Your task to perform on an android device: change your default location settings in chrome Image 0: 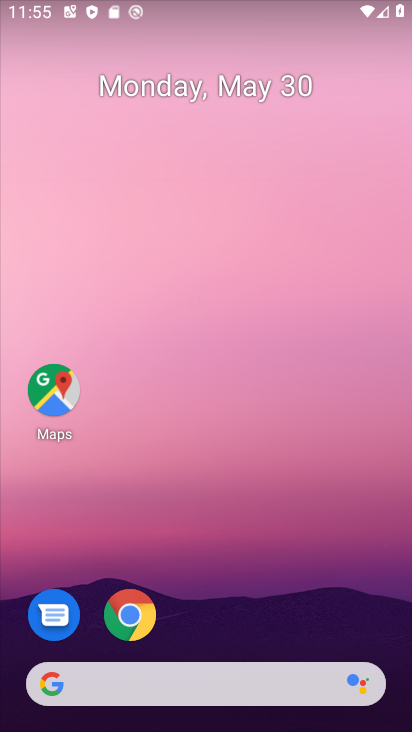
Step 0: drag from (359, 627) to (358, 116)
Your task to perform on an android device: change your default location settings in chrome Image 1: 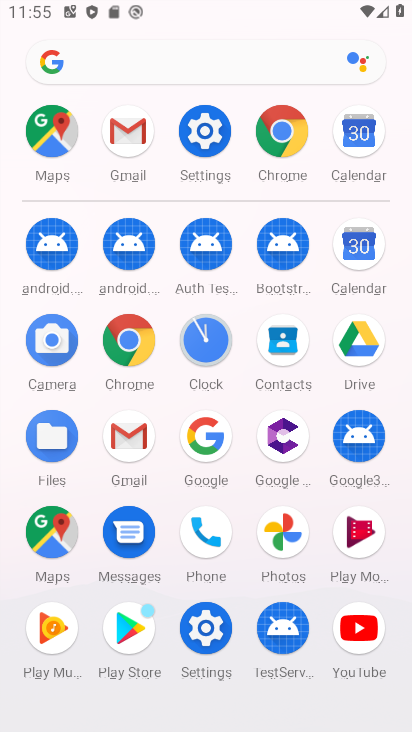
Step 1: click (140, 349)
Your task to perform on an android device: change your default location settings in chrome Image 2: 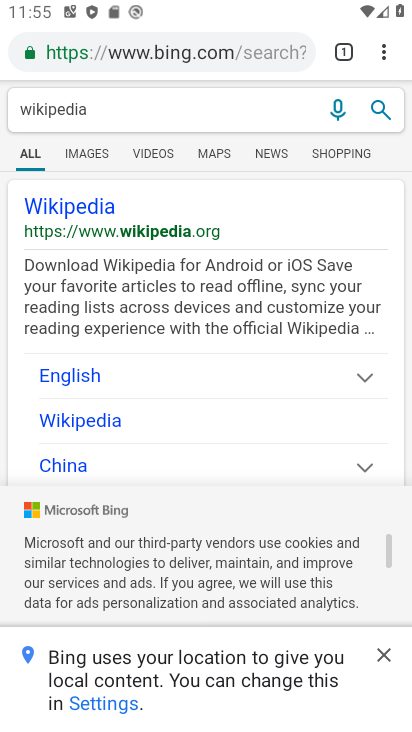
Step 2: drag from (302, 551) to (288, 351)
Your task to perform on an android device: change your default location settings in chrome Image 3: 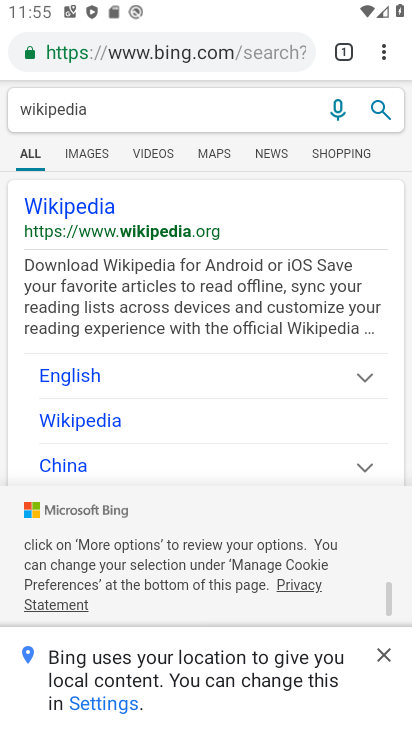
Step 3: click (385, 61)
Your task to perform on an android device: change your default location settings in chrome Image 4: 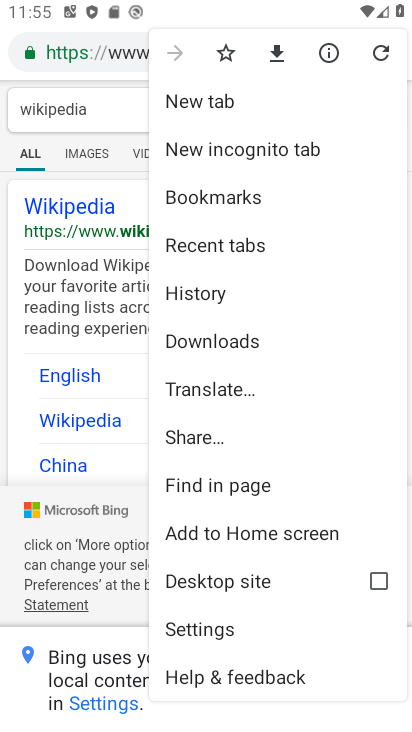
Step 4: drag from (347, 478) to (345, 340)
Your task to perform on an android device: change your default location settings in chrome Image 5: 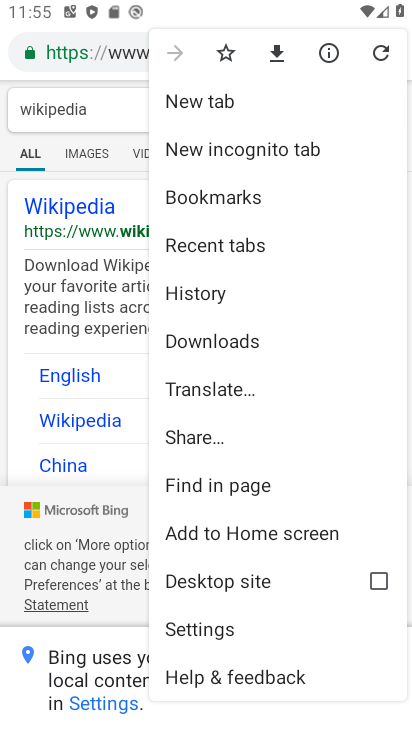
Step 5: click (235, 628)
Your task to perform on an android device: change your default location settings in chrome Image 6: 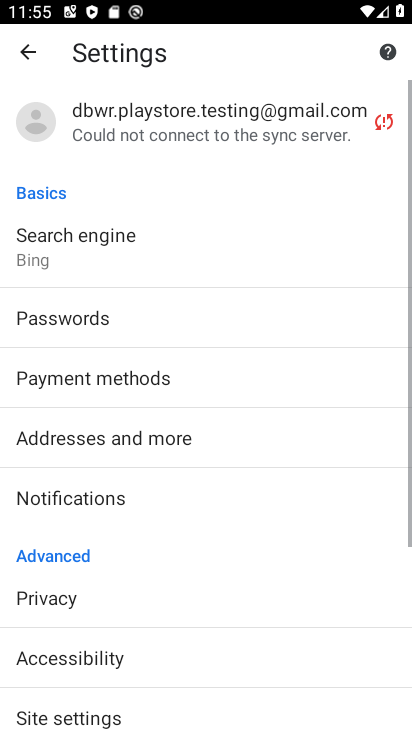
Step 6: drag from (273, 579) to (274, 493)
Your task to perform on an android device: change your default location settings in chrome Image 7: 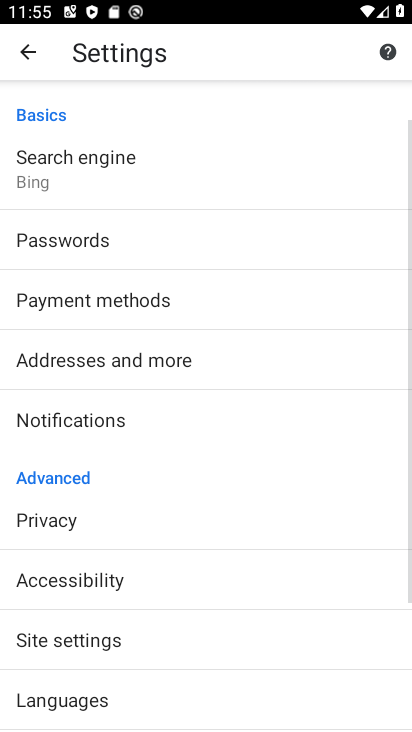
Step 7: drag from (281, 616) to (288, 515)
Your task to perform on an android device: change your default location settings in chrome Image 8: 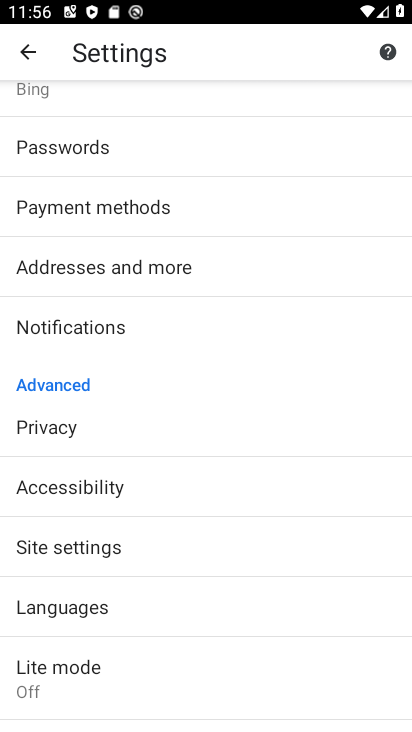
Step 8: drag from (286, 586) to (288, 475)
Your task to perform on an android device: change your default location settings in chrome Image 9: 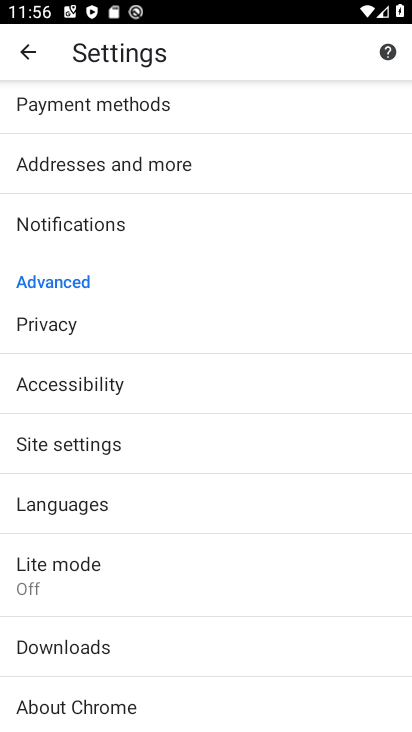
Step 9: click (281, 456)
Your task to perform on an android device: change your default location settings in chrome Image 10: 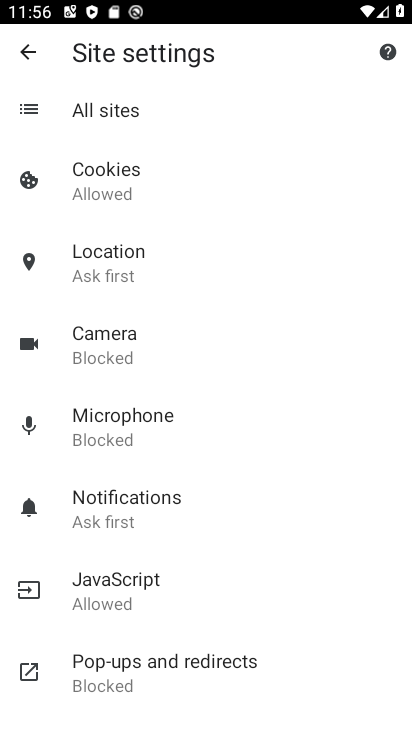
Step 10: click (221, 266)
Your task to perform on an android device: change your default location settings in chrome Image 11: 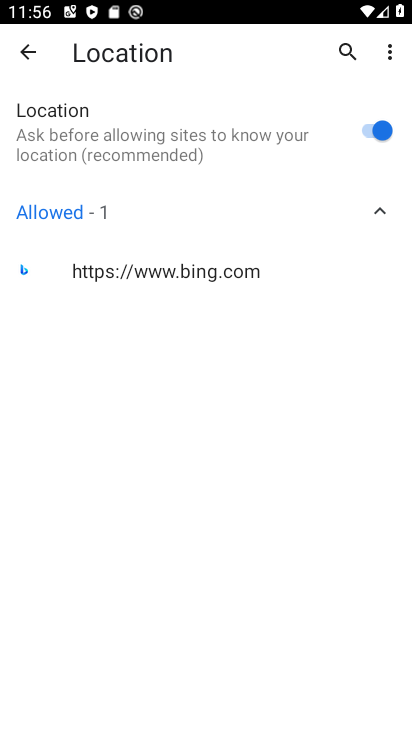
Step 11: click (384, 128)
Your task to perform on an android device: change your default location settings in chrome Image 12: 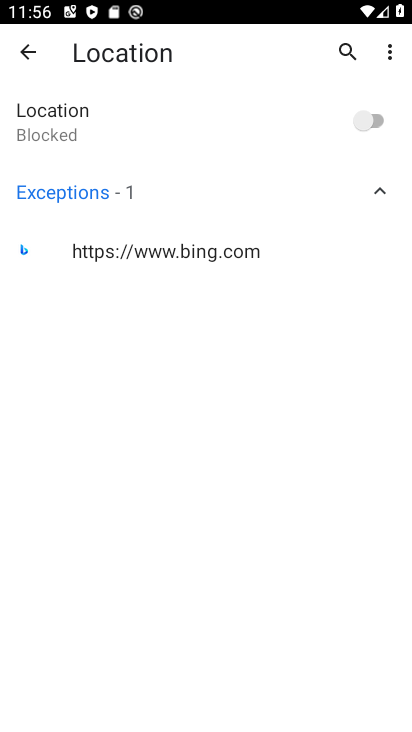
Step 12: task complete